Your task to perform on an android device: Open notification settings Image 0: 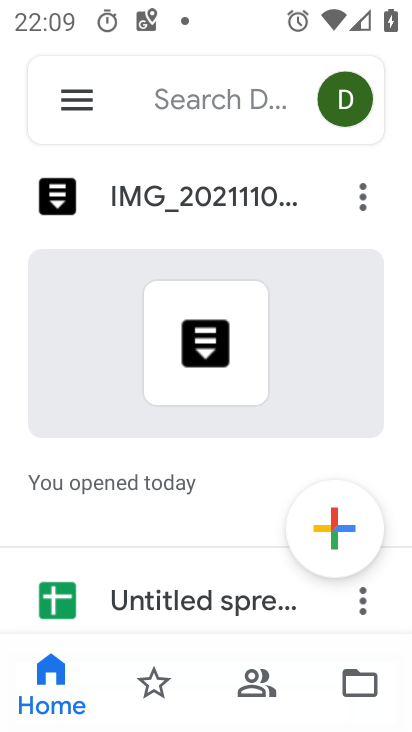
Step 0: press home button
Your task to perform on an android device: Open notification settings Image 1: 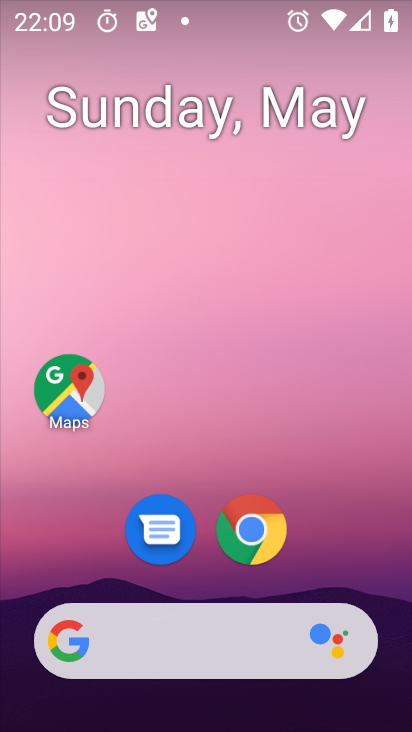
Step 1: drag from (341, 582) to (344, 0)
Your task to perform on an android device: Open notification settings Image 2: 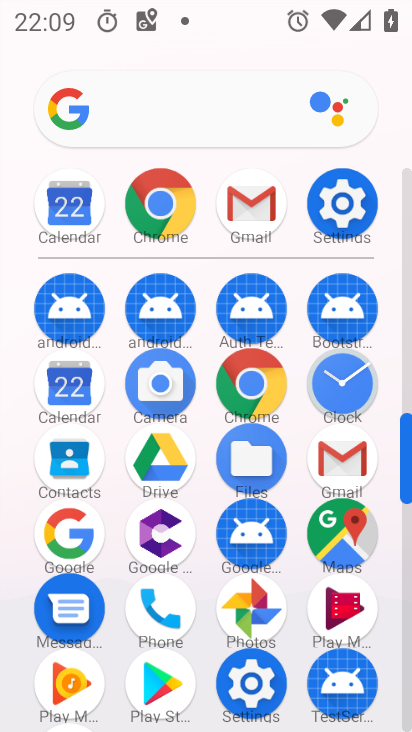
Step 2: click (350, 207)
Your task to perform on an android device: Open notification settings Image 3: 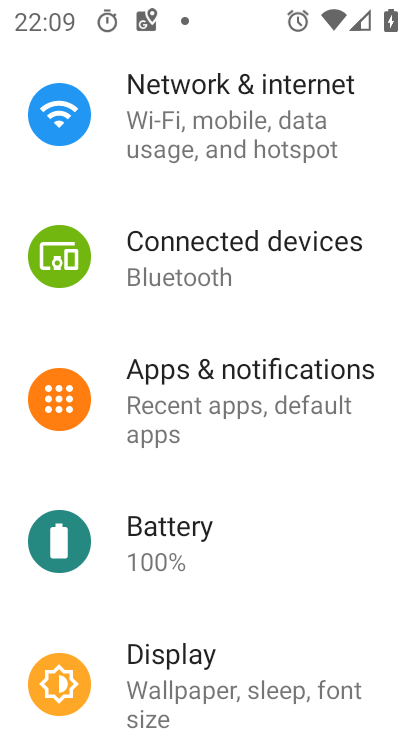
Step 3: click (232, 398)
Your task to perform on an android device: Open notification settings Image 4: 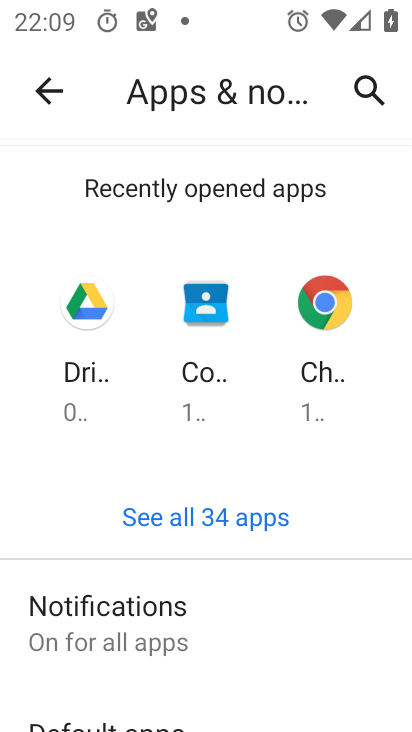
Step 4: task complete